Your task to perform on an android device: When is my next meeting? Image 0: 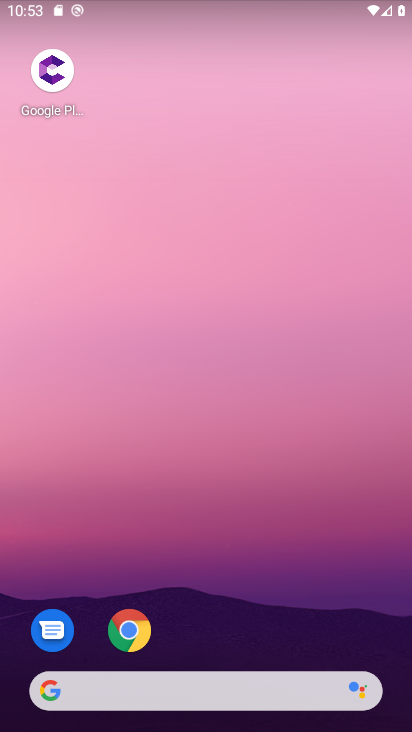
Step 0: drag from (282, 612) to (308, 78)
Your task to perform on an android device: When is my next meeting? Image 1: 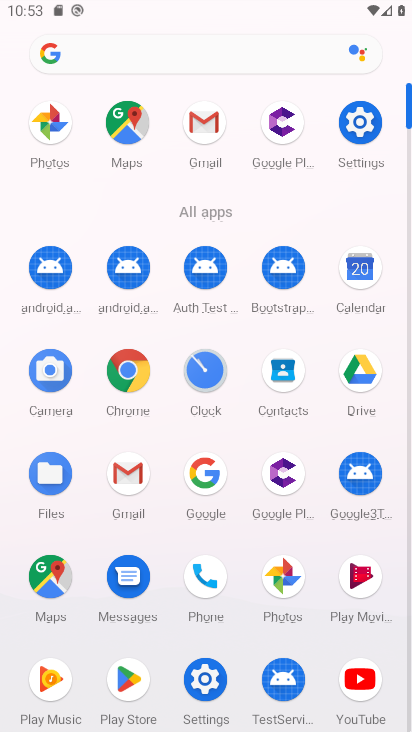
Step 1: click (365, 276)
Your task to perform on an android device: When is my next meeting? Image 2: 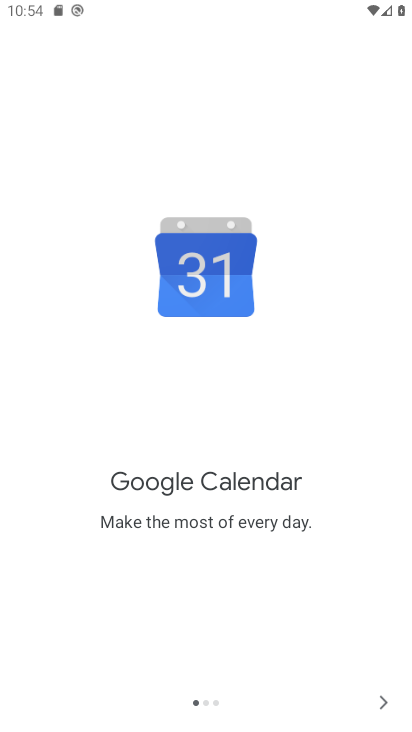
Step 2: click (383, 700)
Your task to perform on an android device: When is my next meeting? Image 3: 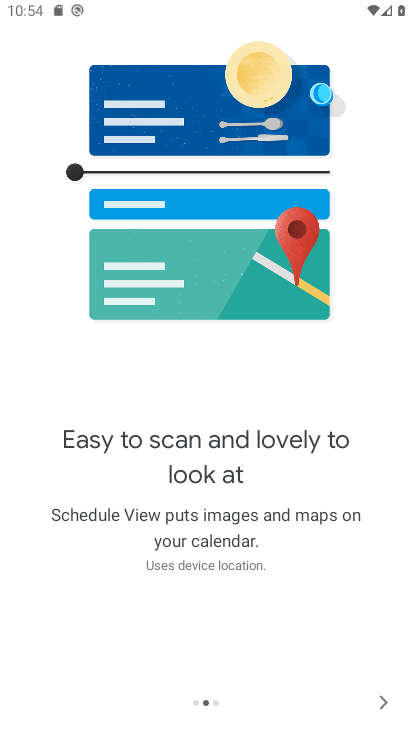
Step 3: click (383, 700)
Your task to perform on an android device: When is my next meeting? Image 4: 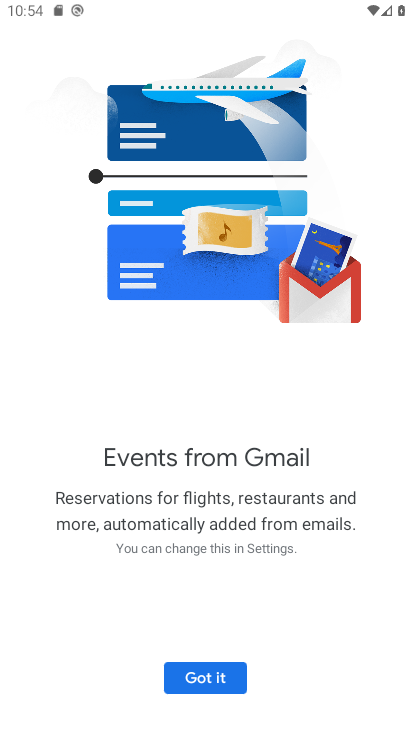
Step 4: click (214, 671)
Your task to perform on an android device: When is my next meeting? Image 5: 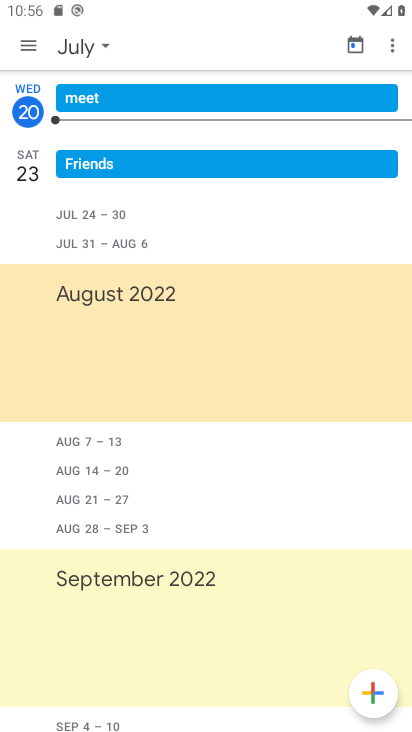
Step 5: task complete